Your task to perform on an android device: Open maps Image 0: 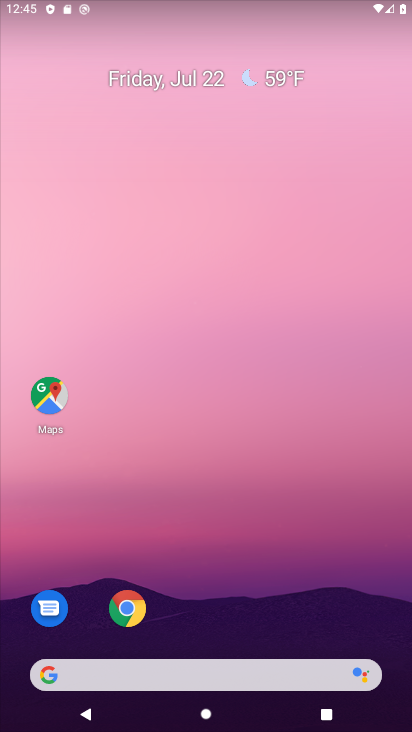
Step 0: drag from (198, 633) to (180, 0)
Your task to perform on an android device: Open maps Image 1: 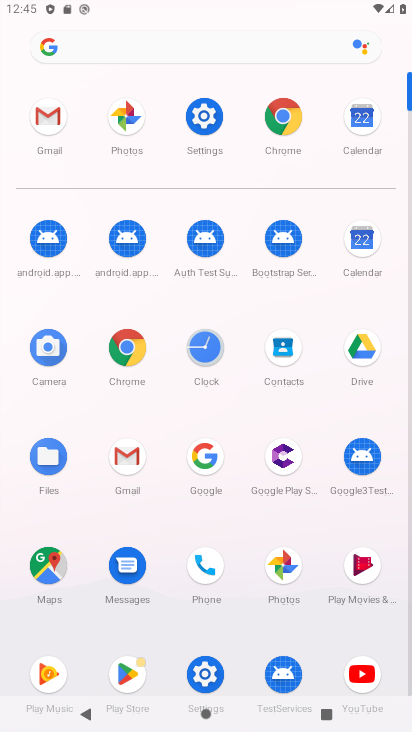
Step 1: click (43, 579)
Your task to perform on an android device: Open maps Image 2: 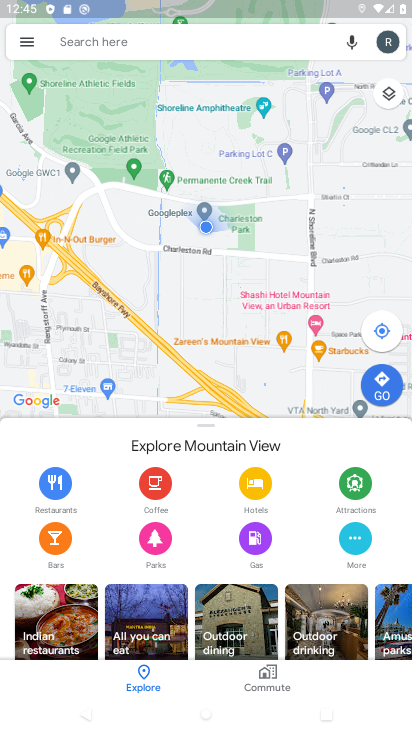
Step 2: task complete